Your task to perform on an android device: allow cookies in the chrome app Image 0: 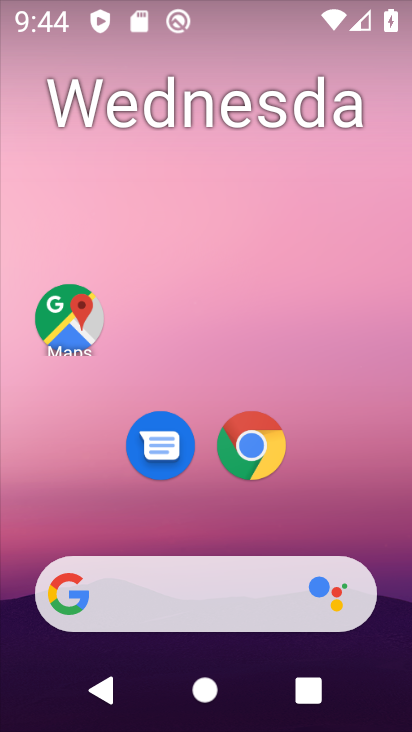
Step 0: click (254, 434)
Your task to perform on an android device: allow cookies in the chrome app Image 1: 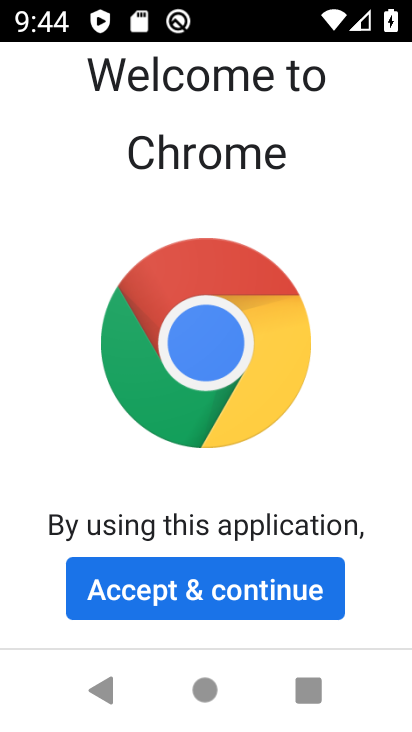
Step 1: click (215, 604)
Your task to perform on an android device: allow cookies in the chrome app Image 2: 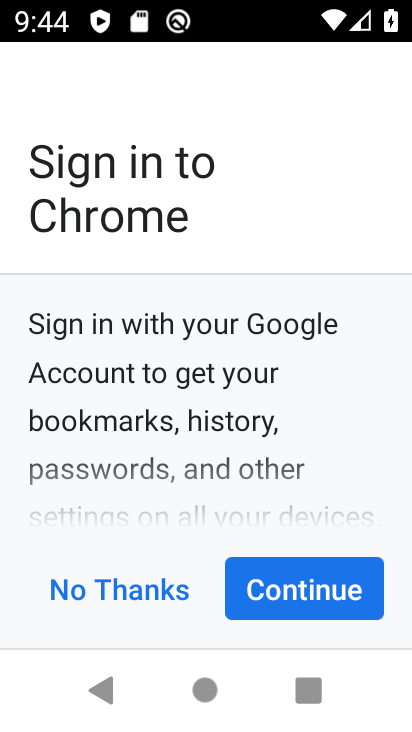
Step 2: click (321, 592)
Your task to perform on an android device: allow cookies in the chrome app Image 3: 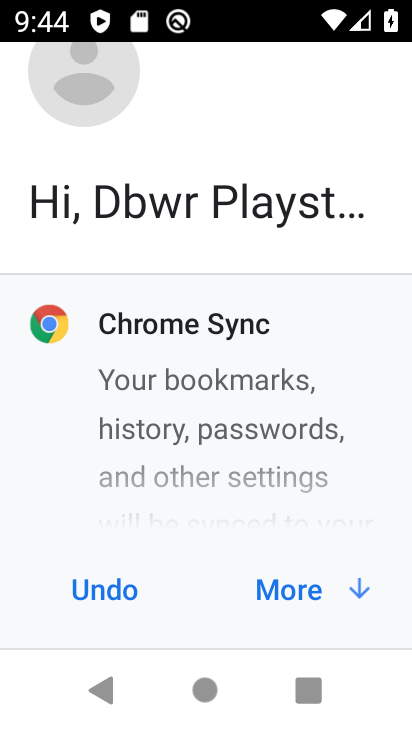
Step 3: click (305, 587)
Your task to perform on an android device: allow cookies in the chrome app Image 4: 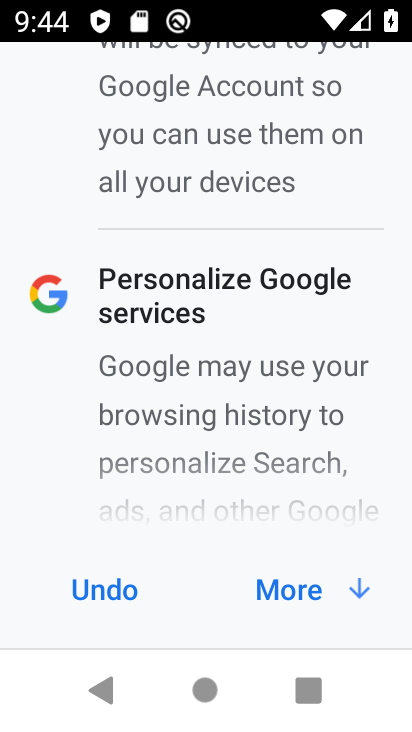
Step 4: click (305, 587)
Your task to perform on an android device: allow cookies in the chrome app Image 5: 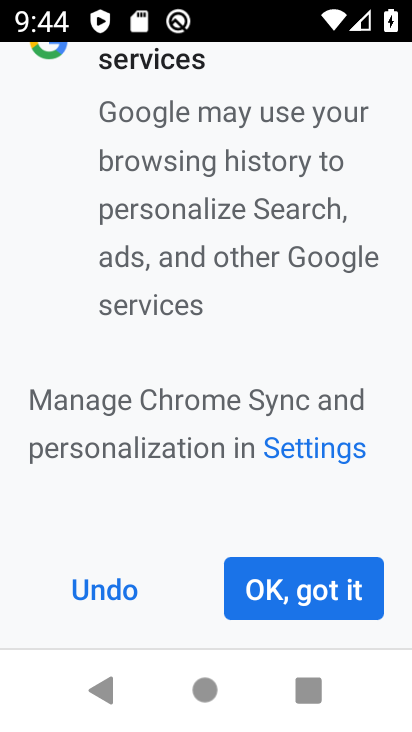
Step 5: click (289, 593)
Your task to perform on an android device: allow cookies in the chrome app Image 6: 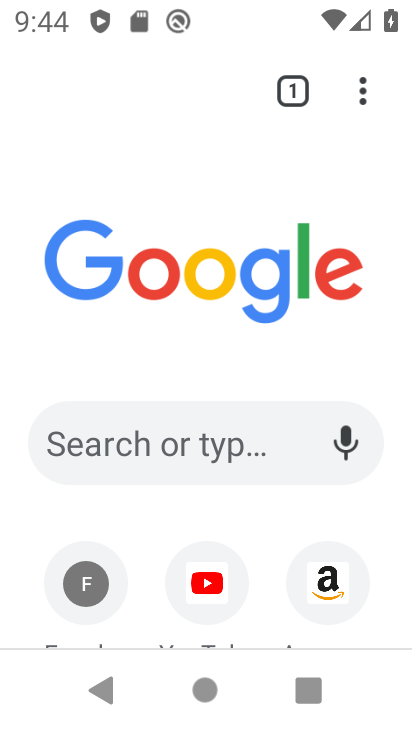
Step 6: click (362, 97)
Your task to perform on an android device: allow cookies in the chrome app Image 7: 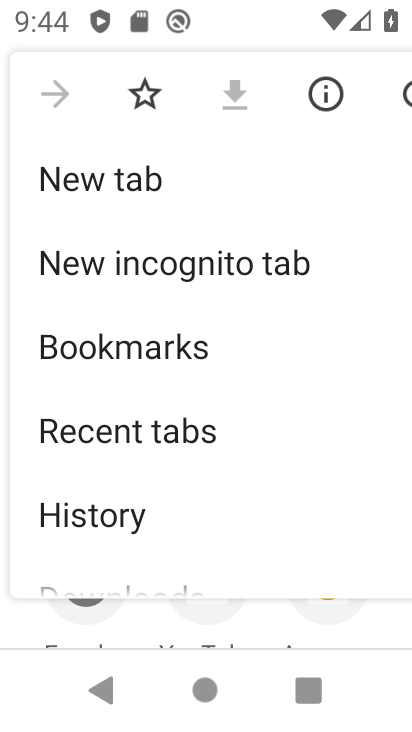
Step 7: drag from (109, 549) to (121, 200)
Your task to perform on an android device: allow cookies in the chrome app Image 8: 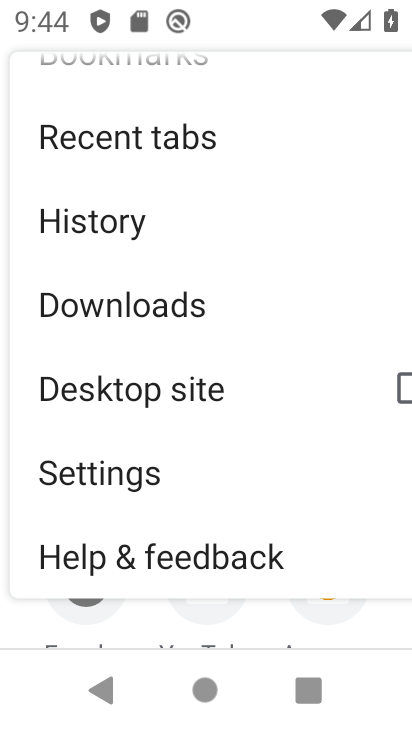
Step 8: click (99, 473)
Your task to perform on an android device: allow cookies in the chrome app Image 9: 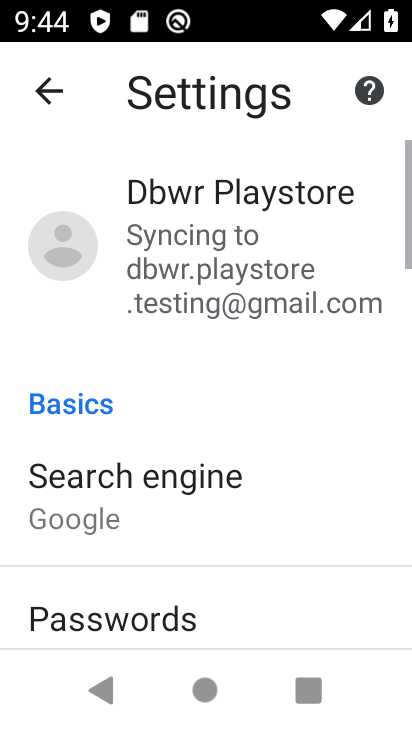
Step 9: drag from (196, 604) to (187, 300)
Your task to perform on an android device: allow cookies in the chrome app Image 10: 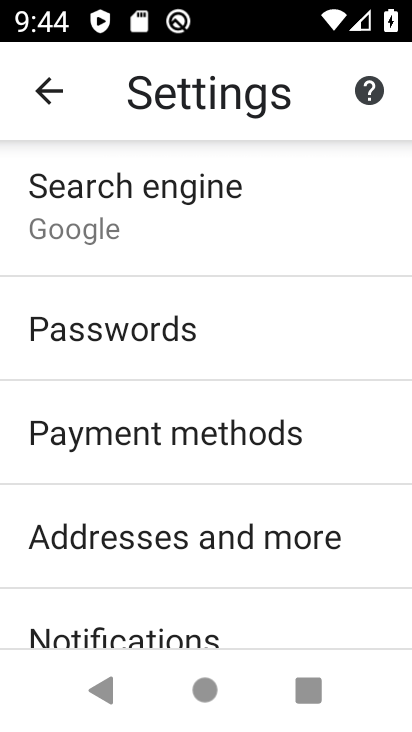
Step 10: drag from (180, 577) to (187, 285)
Your task to perform on an android device: allow cookies in the chrome app Image 11: 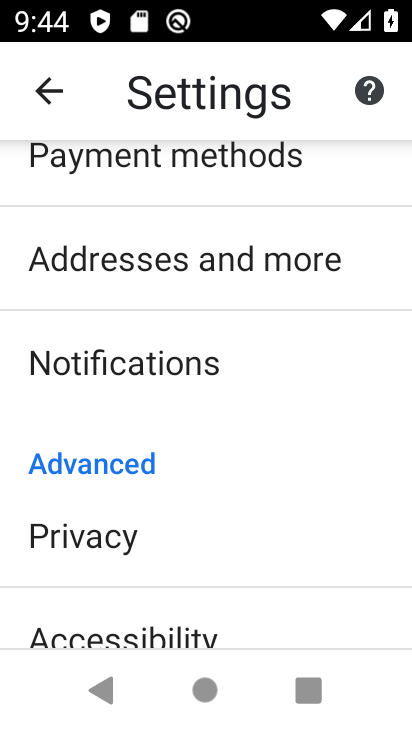
Step 11: drag from (125, 598) to (121, 265)
Your task to perform on an android device: allow cookies in the chrome app Image 12: 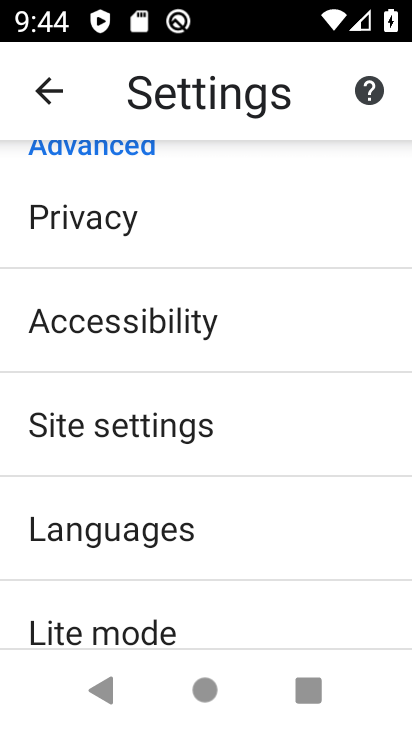
Step 12: drag from (119, 563) to (116, 274)
Your task to perform on an android device: allow cookies in the chrome app Image 13: 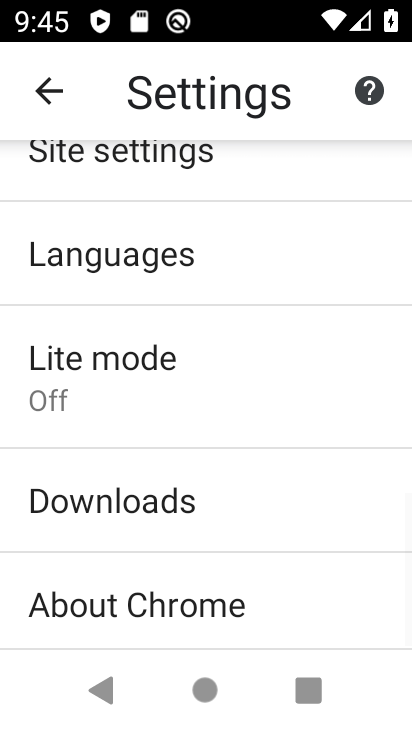
Step 13: drag from (140, 267) to (127, 551)
Your task to perform on an android device: allow cookies in the chrome app Image 14: 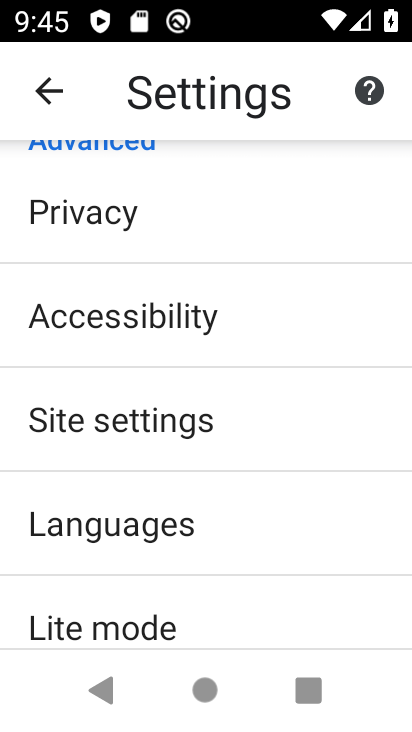
Step 14: drag from (106, 607) to (102, 489)
Your task to perform on an android device: allow cookies in the chrome app Image 15: 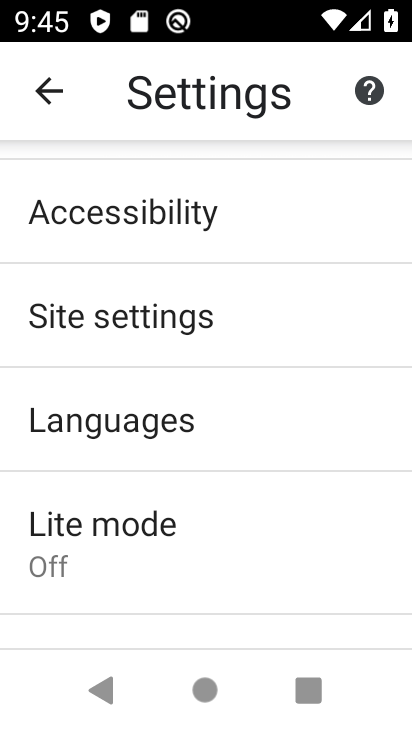
Step 15: click (133, 310)
Your task to perform on an android device: allow cookies in the chrome app Image 16: 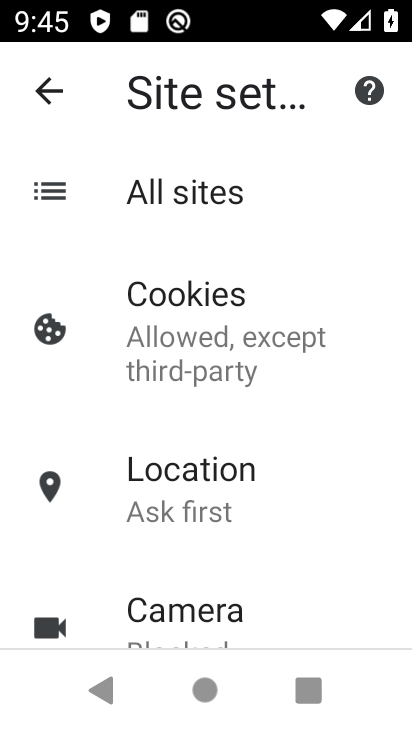
Step 16: click (165, 326)
Your task to perform on an android device: allow cookies in the chrome app Image 17: 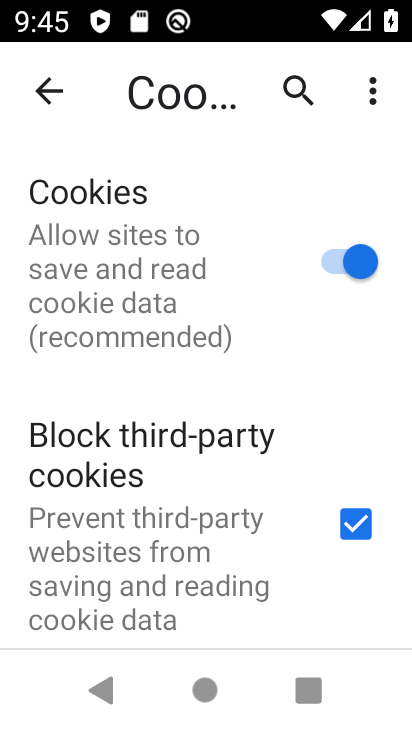
Step 17: task complete